Your task to perform on an android device: What is the news today? Image 0: 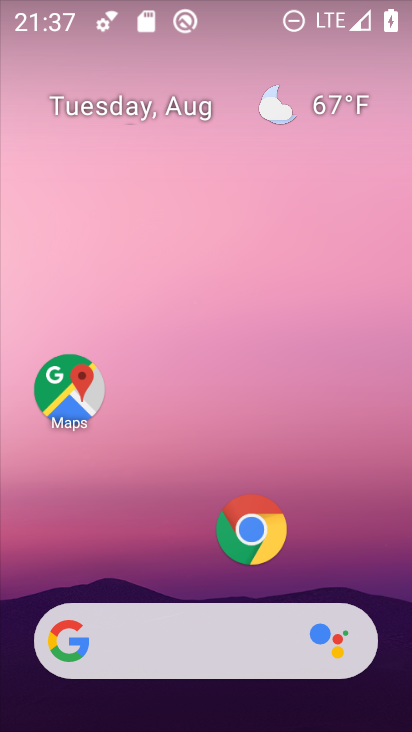
Step 0: drag from (188, 556) to (194, 174)
Your task to perform on an android device: What is the news today? Image 1: 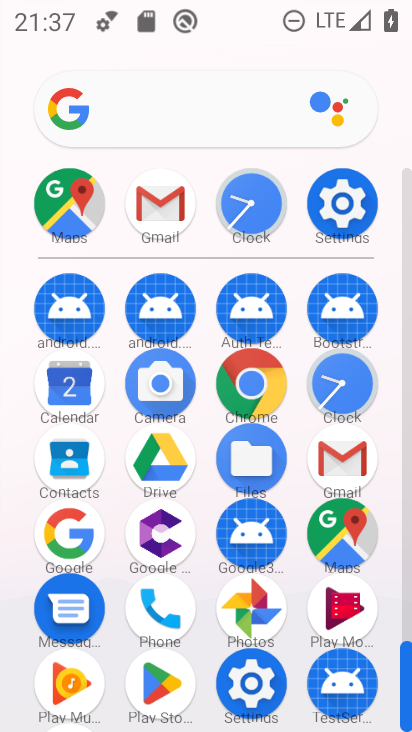
Step 1: click (153, 118)
Your task to perform on an android device: What is the news today? Image 2: 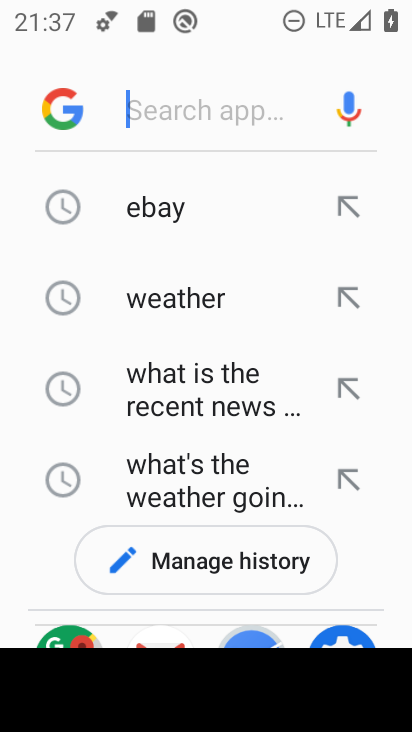
Step 2: type "news today?"
Your task to perform on an android device: What is the news today? Image 3: 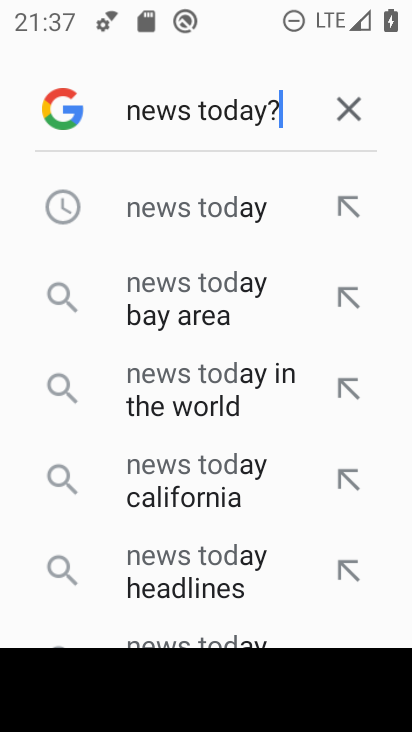
Step 3: type ""
Your task to perform on an android device: What is the news today? Image 4: 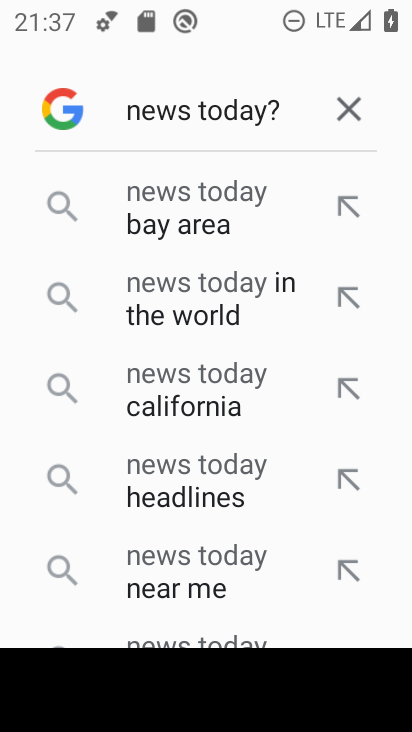
Step 4: click (129, 196)
Your task to perform on an android device: What is the news today? Image 5: 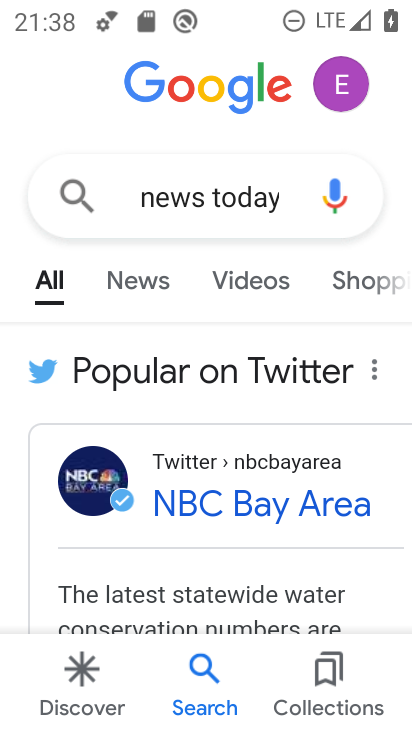
Step 5: task complete